Your task to perform on an android device: Open eBay Image 0: 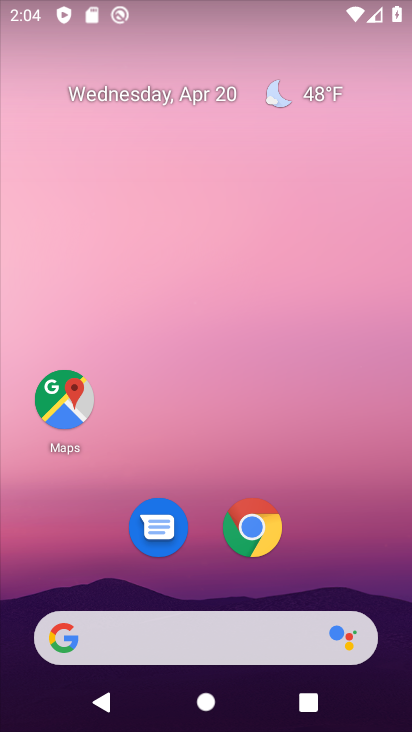
Step 0: click (263, 524)
Your task to perform on an android device: Open eBay Image 1: 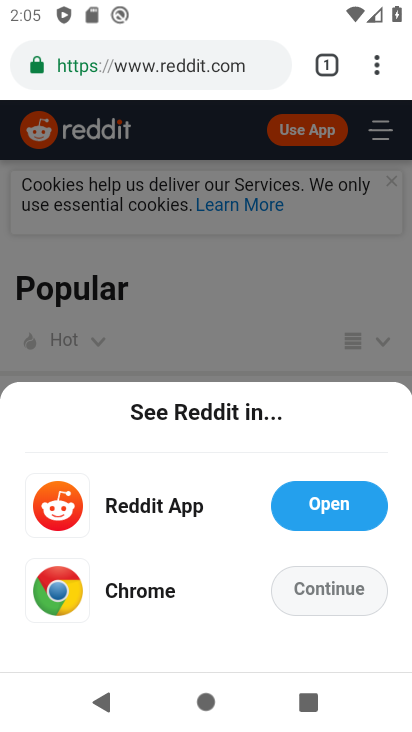
Step 1: click (229, 61)
Your task to perform on an android device: Open eBay Image 2: 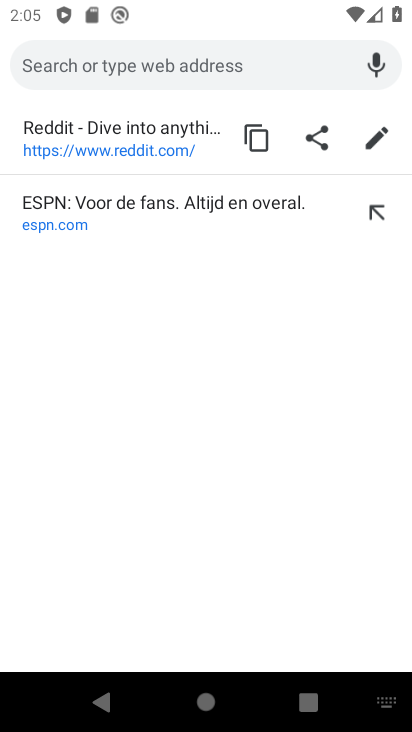
Step 2: type "ebay.com"
Your task to perform on an android device: Open eBay Image 3: 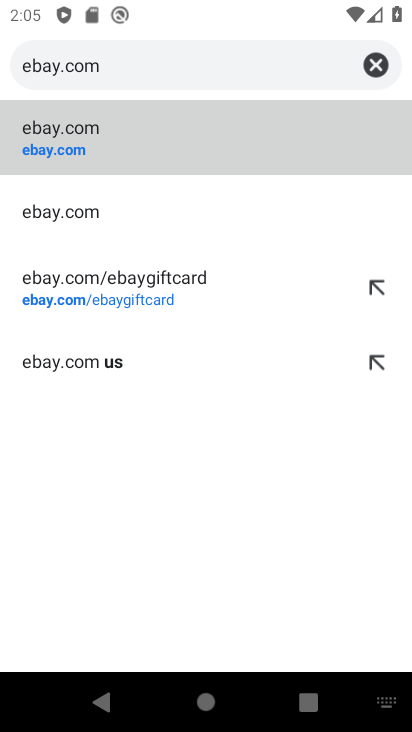
Step 3: click (226, 135)
Your task to perform on an android device: Open eBay Image 4: 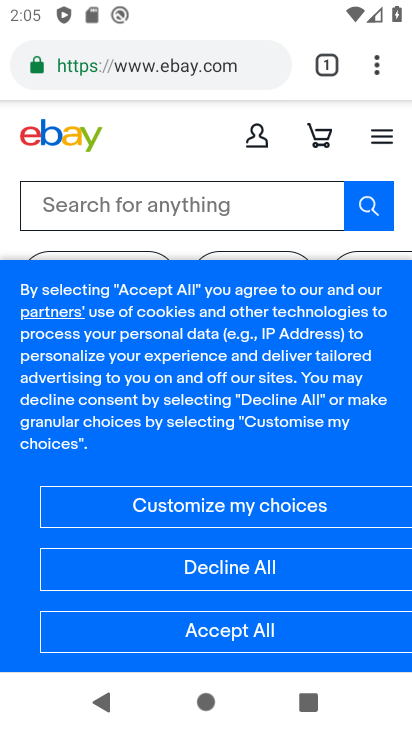
Step 4: task complete